Your task to perform on an android device: Open the web browser Image 0: 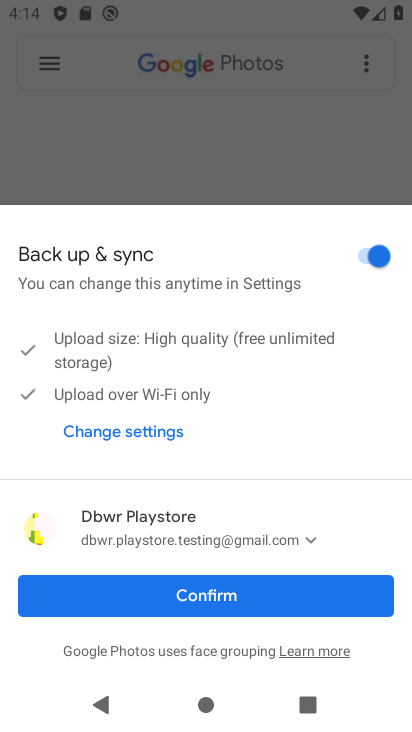
Step 0: press home button
Your task to perform on an android device: Open the web browser Image 1: 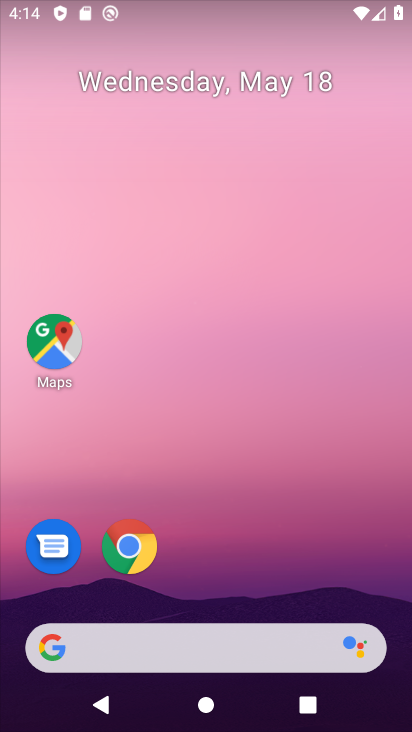
Step 1: click (126, 543)
Your task to perform on an android device: Open the web browser Image 2: 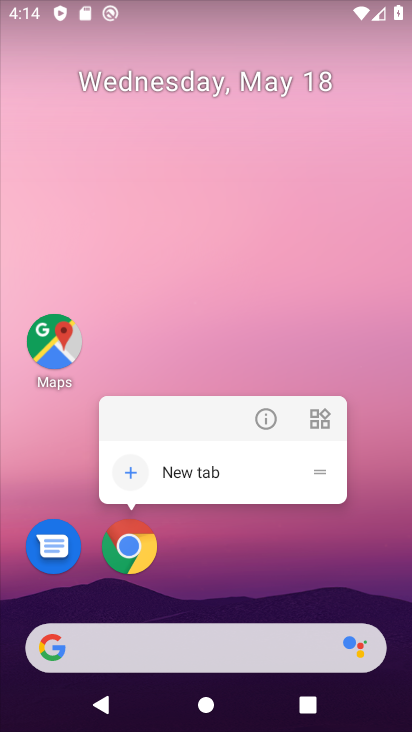
Step 2: click (148, 561)
Your task to perform on an android device: Open the web browser Image 3: 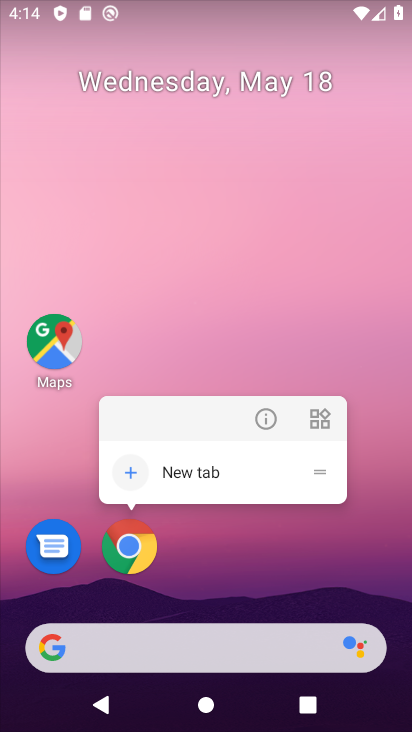
Step 3: click (121, 558)
Your task to perform on an android device: Open the web browser Image 4: 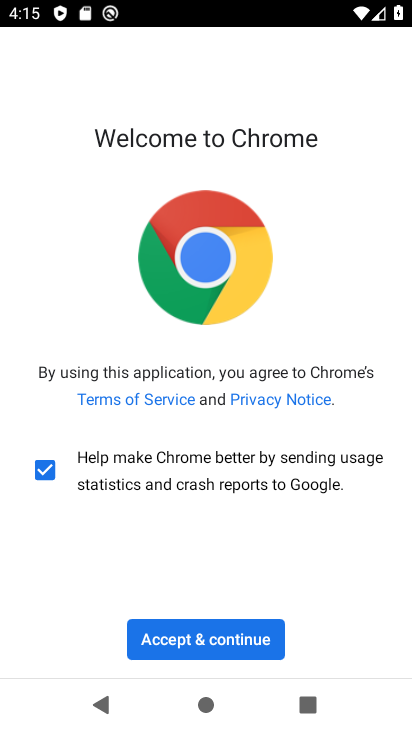
Step 4: click (235, 644)
Your task to perform on an android device: Open the web browser Image 5: 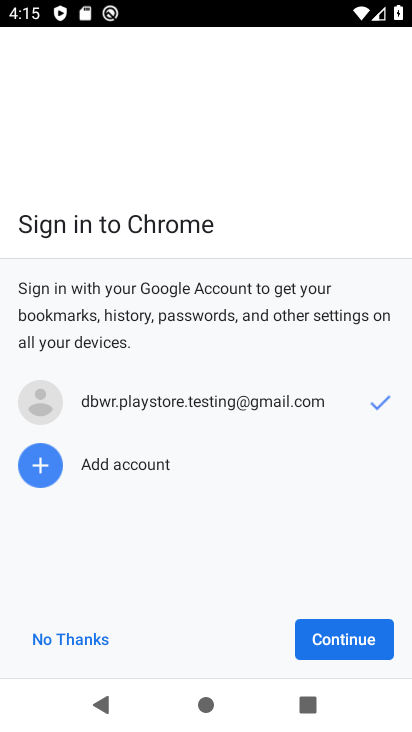
Step 5: click (338, 642)
Your task to perform on an android device: Open the web browser Image 6: 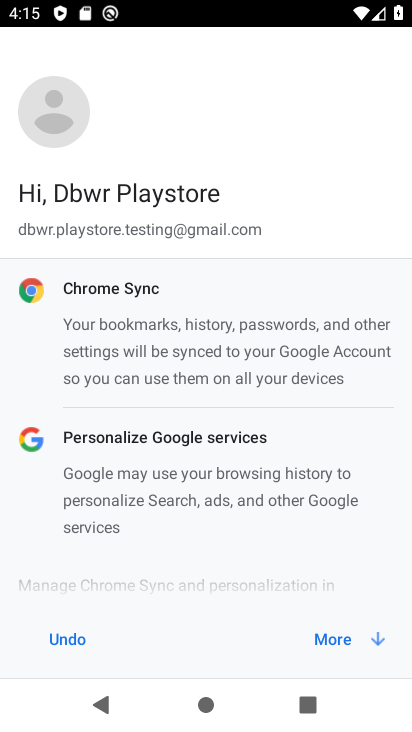
Step 6: click (337, 645)
Your task to perform on an android device: Open the web browser Image 7: 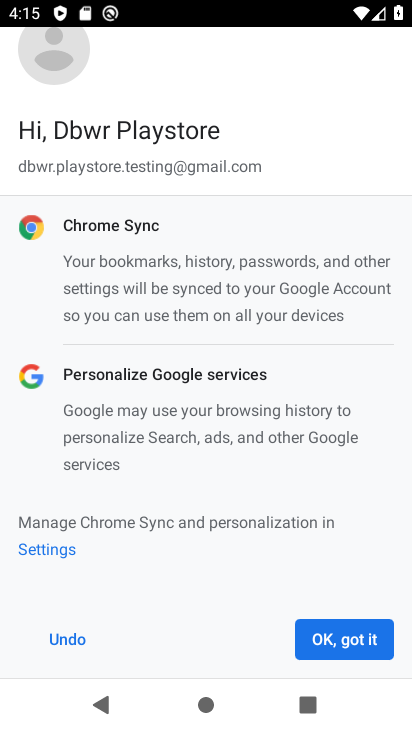
Step 7: click (341, 624)
Your task to perform on an android device: Open the web browser Image 8: 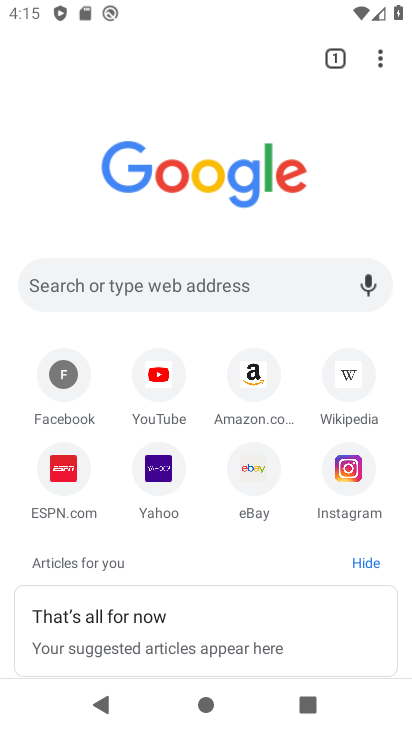
Step 8: task complete